Your task to perform on an android device: Go to display settings Image 0: 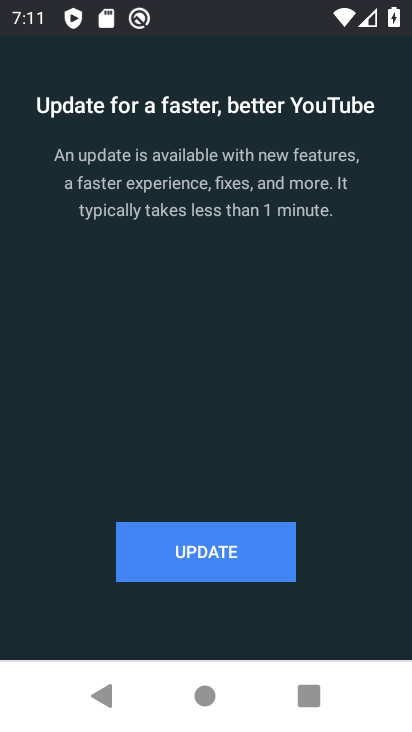
Step 0: press back button
Your task to perform on an android device: Go to display settings Image 1: 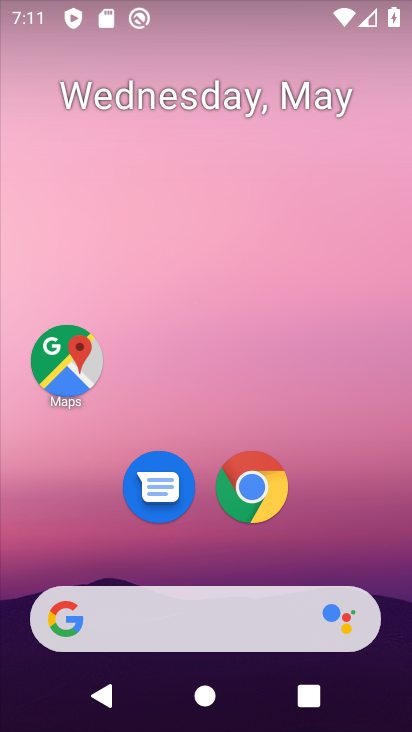
Step 1: drag from (262, 650) to (145, 118)
Your task to perform on an android device: Go to display settings Image 2: 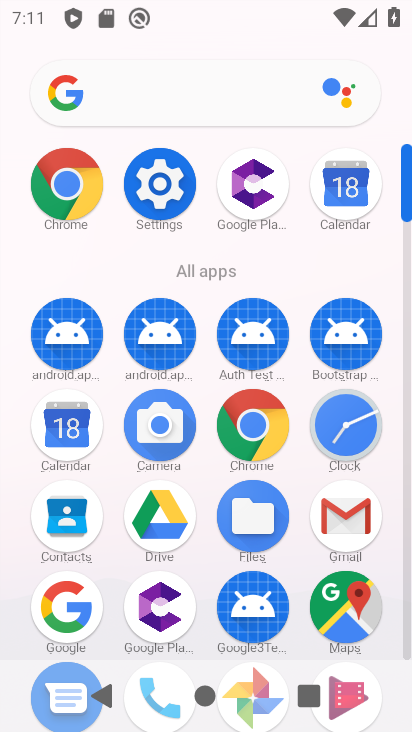
Step 2: click (169, 200)
Your task to perform on an android device: Go to display settings Image 3: 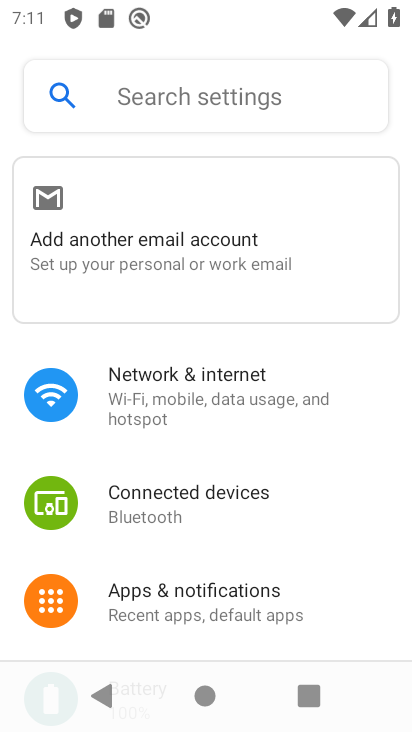
Step 3: drag from (230, 515) to (179, 269)
Your task to perform on an android device: Go to display settings Image 4: 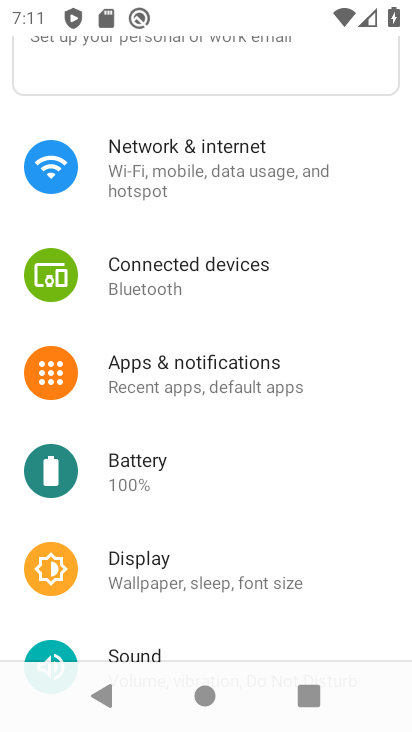
Step 4: click (198, 562)
Your task to perform on an android device: Go to display settings Image 5: 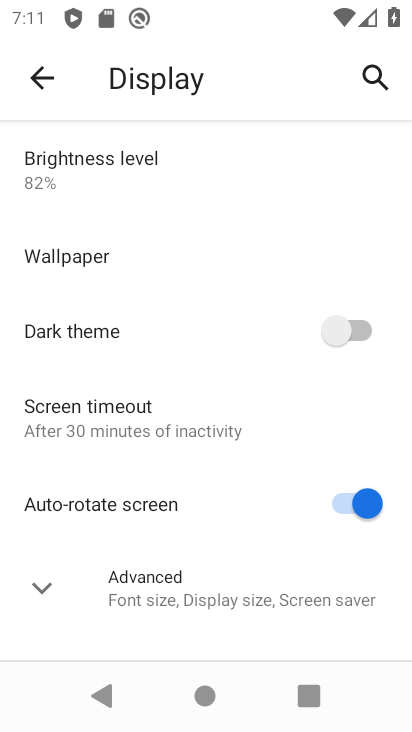
Step 5: task complete